Your task to perform on an android device: move an email to a new category in the gmail app Image 0: 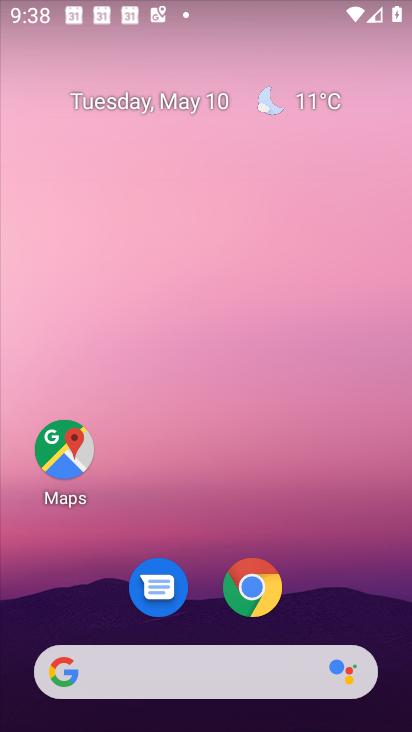
Step 0: drag from (379, 596) to (368, 146)
Your task to perform on an android device: move an email to a new category in the gmail app Image 1: 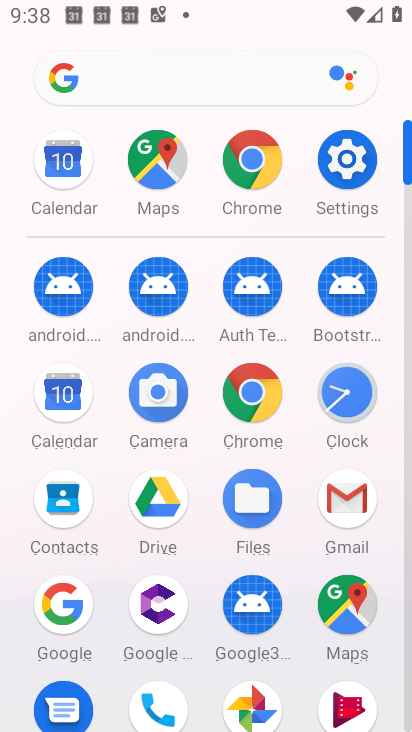
Step 1: click (333, 492)
Your task to perform on an android device: move an email to a new category in the gmail app Image 2: 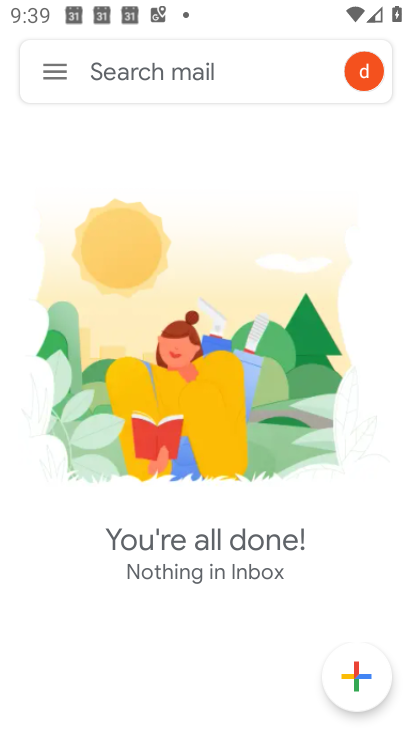
Step 2: click (154, 75)
Your task to perform on an android device: move an email to a new category in the gmail app Image 3: 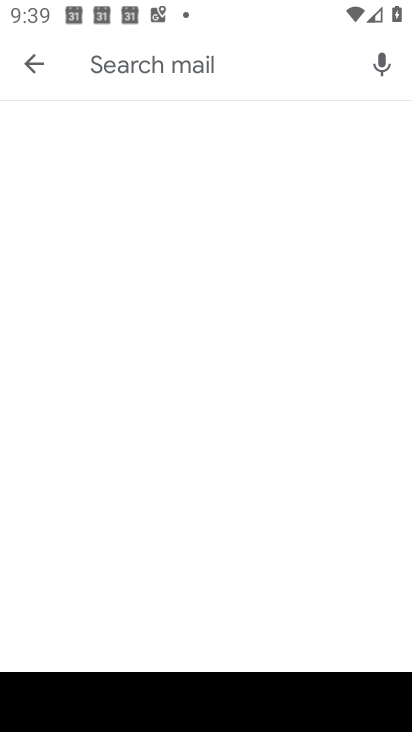
Step 3: click (41, 60)
Your task to perform on an android device: move an email to a new category in the gmail app Image 4: 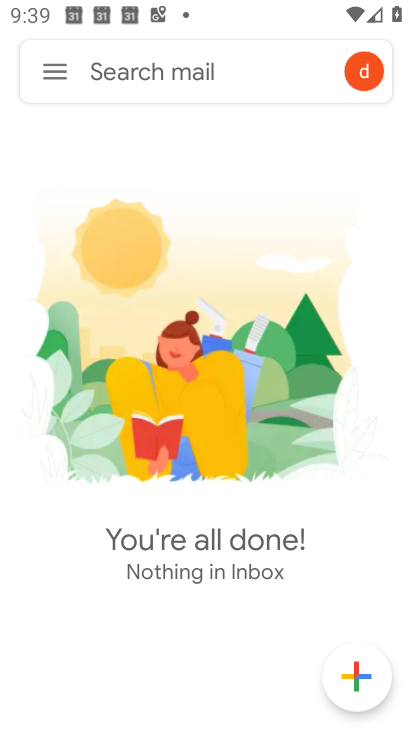
Step 4: click (55, 74)
Your task to perform on an android device: move an email to a new category in the gmail app Image 5: 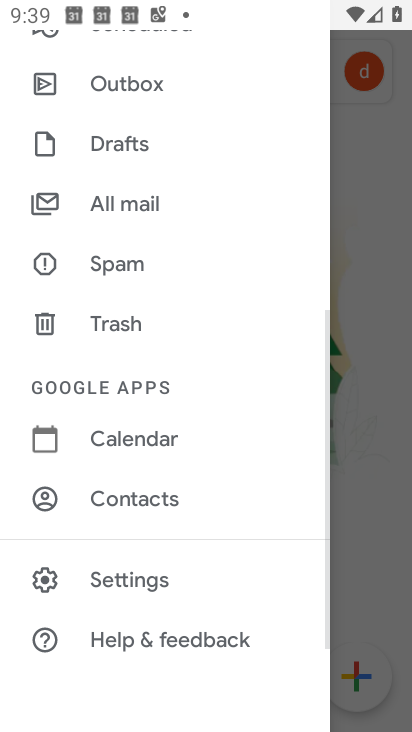
Step 5: click (124, 222)
Your task to perform on an android device: move an email to a new category in the gmail app Image 6: 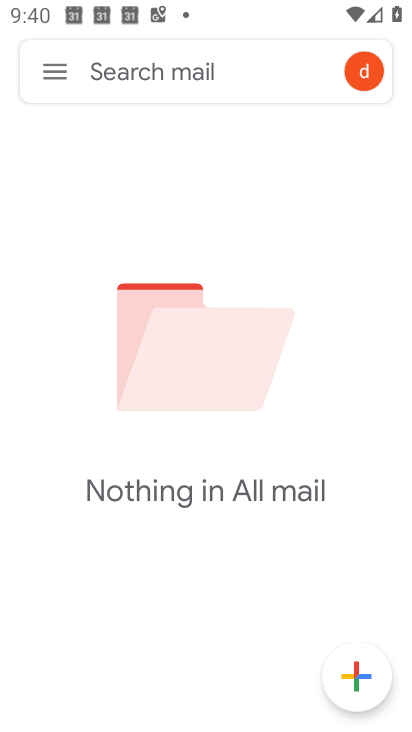
Step 6: task complete